Your task to perform on an android device: Open sound settings Image 0: 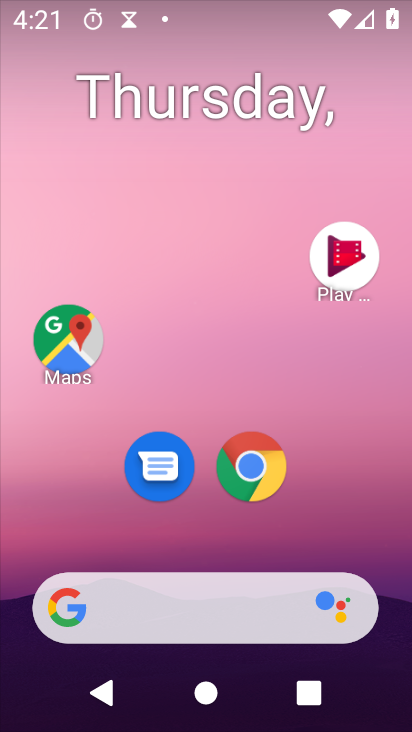
Step 0: drag from (224, 631) to (338, 0)
Your task to perform on an android device: Open sound settings Image 1: 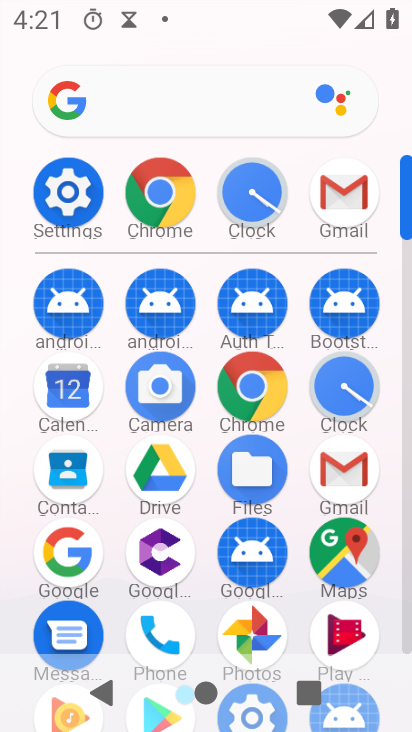
Step 1: click (87, 189)
Your task to perform on an android device: Open sound settings Image 2: 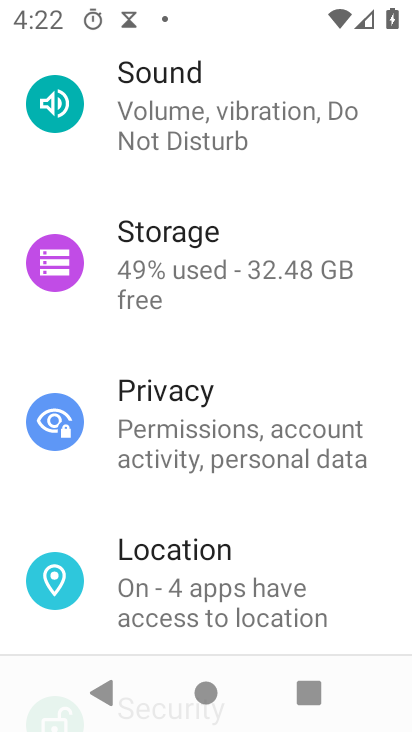
Step 2: drag from (274, 183) to (303, 438)
Your task to perform on an android device: Open sound settings Image 3: 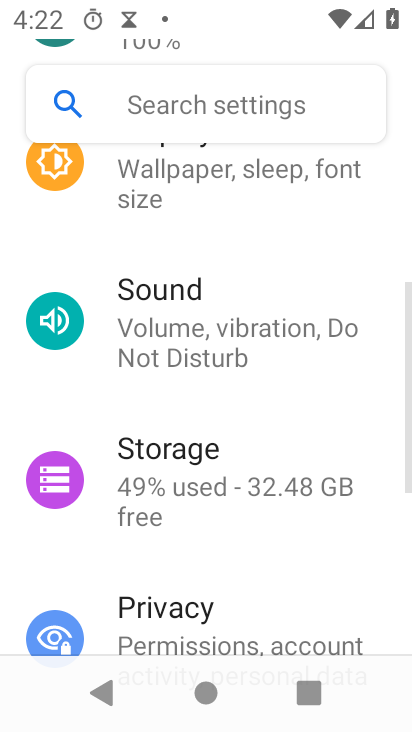
Step 3: click (286, 340)
Your task to perform on an android device: Open sound settings Image 4: 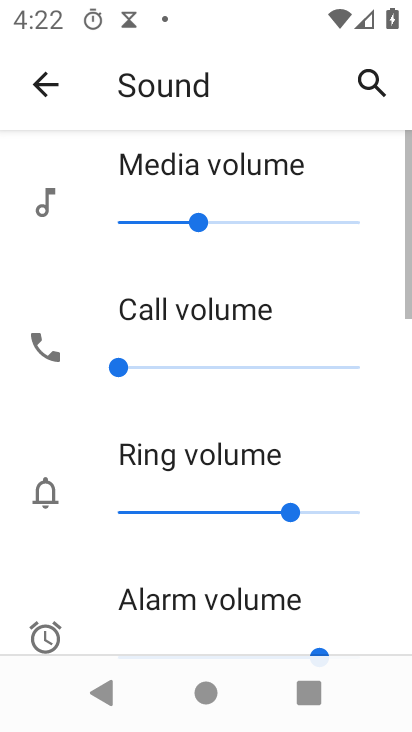
Step 4: task complete